Your task to perform on an android device: View the shopping cart on ebay.com. Add rayovac triple a to the cart on ebay.com Image 0: 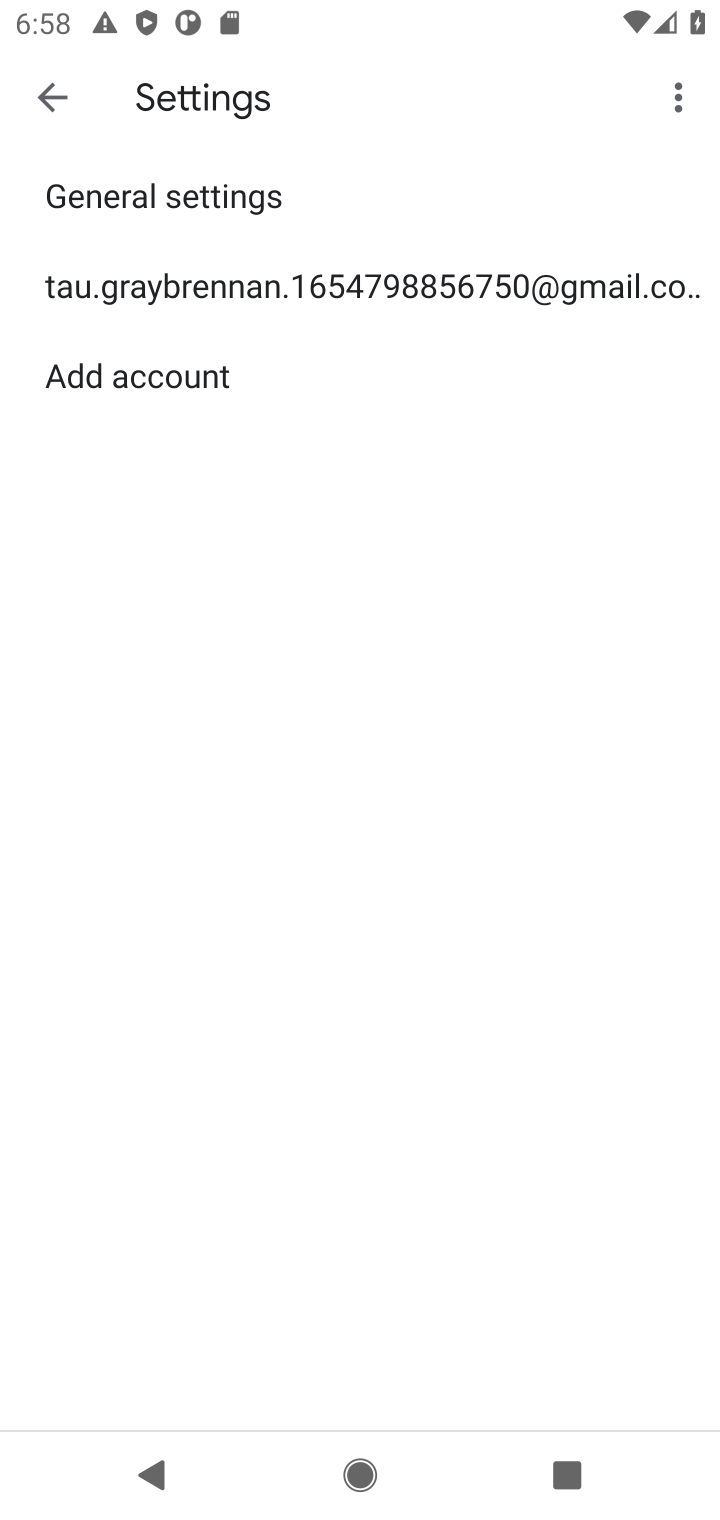
Step 0: press home button
Your task to perform on an android device: View the shopping cart on ebay.com. Add rayovac triple a to the cart on ebay.com Image 1: 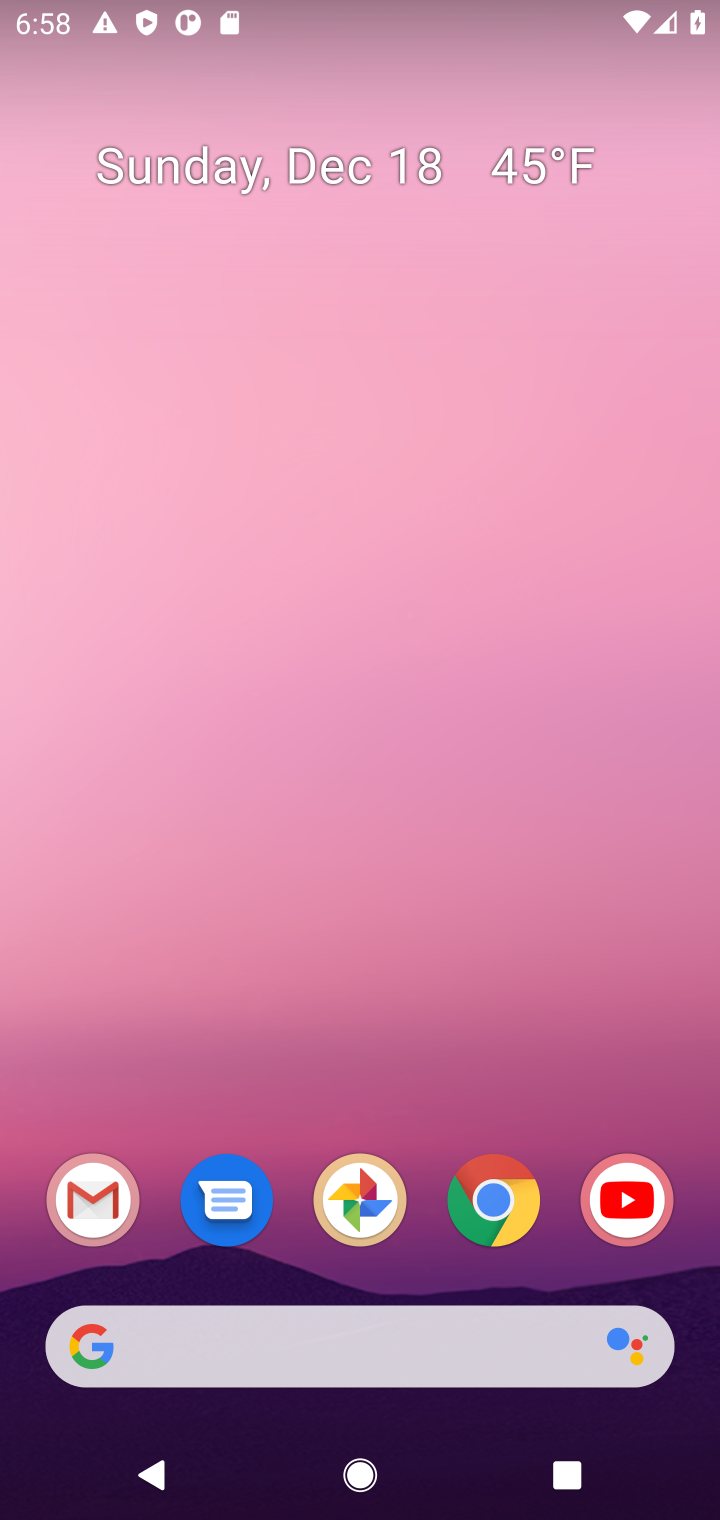
Step 1: click (485, 1215)
Your task to perform on an android device: View the shopping cart on ebay.com. Add rayovac triple a to the cart on ebay.com Image 2: 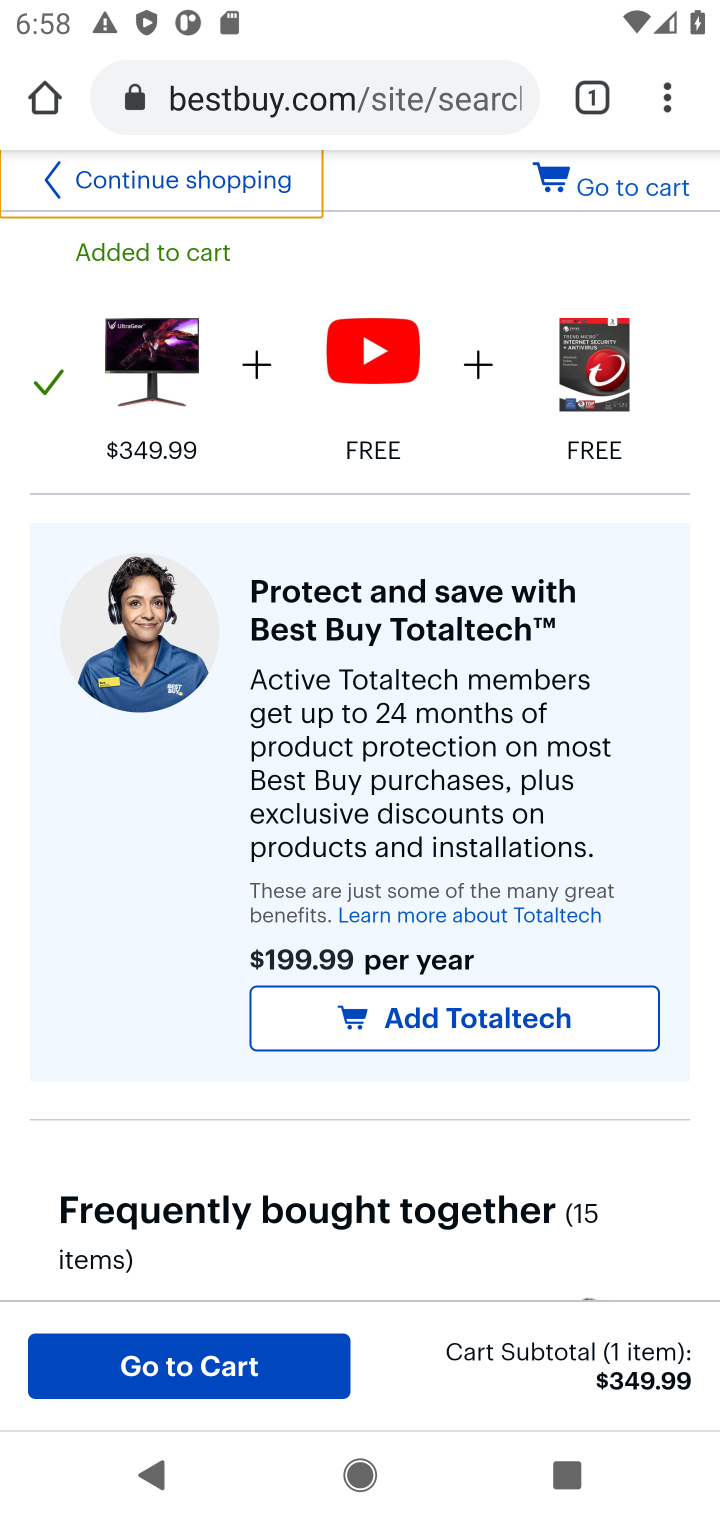
Step 2: click (318, 103)
Your task to perform on an android device: View the shopping cart on ebay.com. Add rayovac triple a to the cart on ebay.com Image 3: 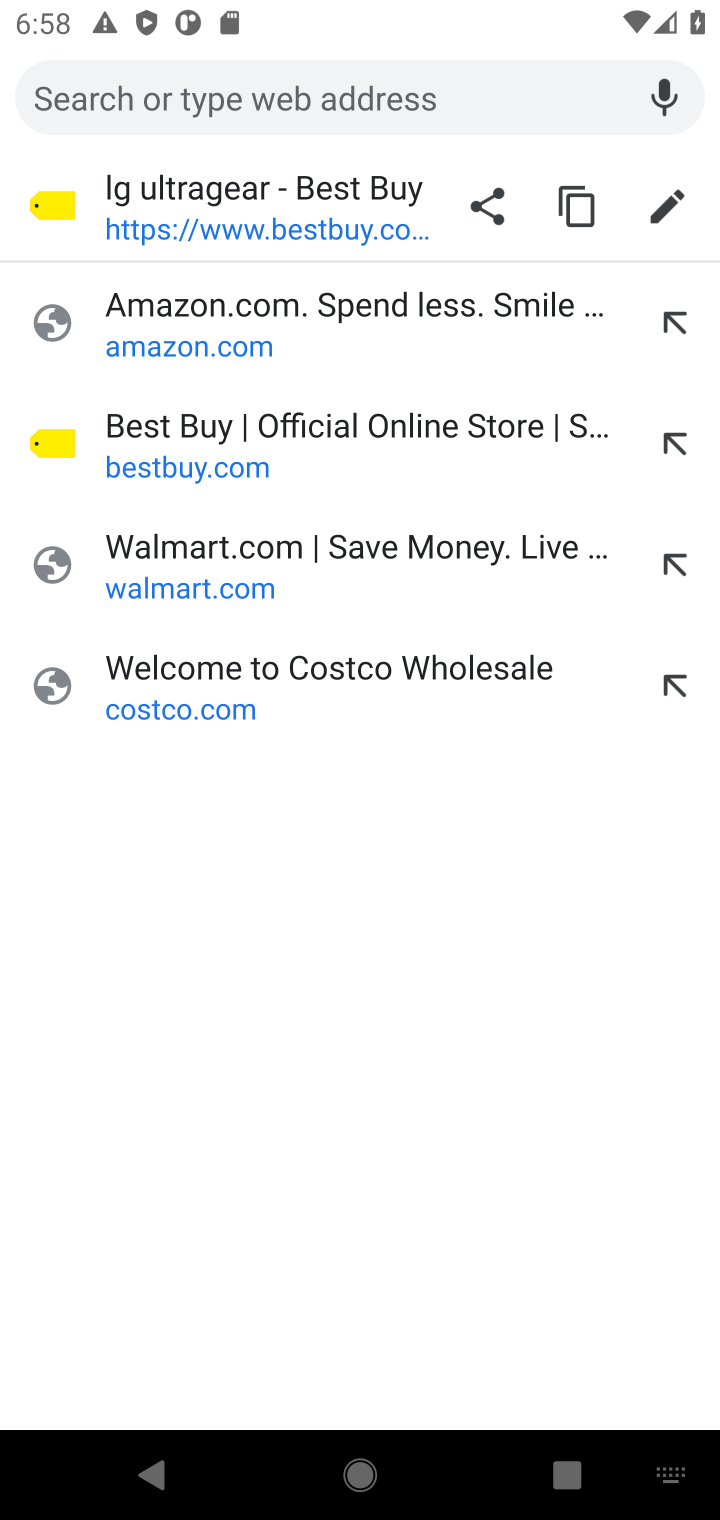
Step 3: type "ebay.com"
Your task to perform on an android device: View the shopping cart on ebay.com. Add rayovac triple a to the cart on ebay.com Image 4: 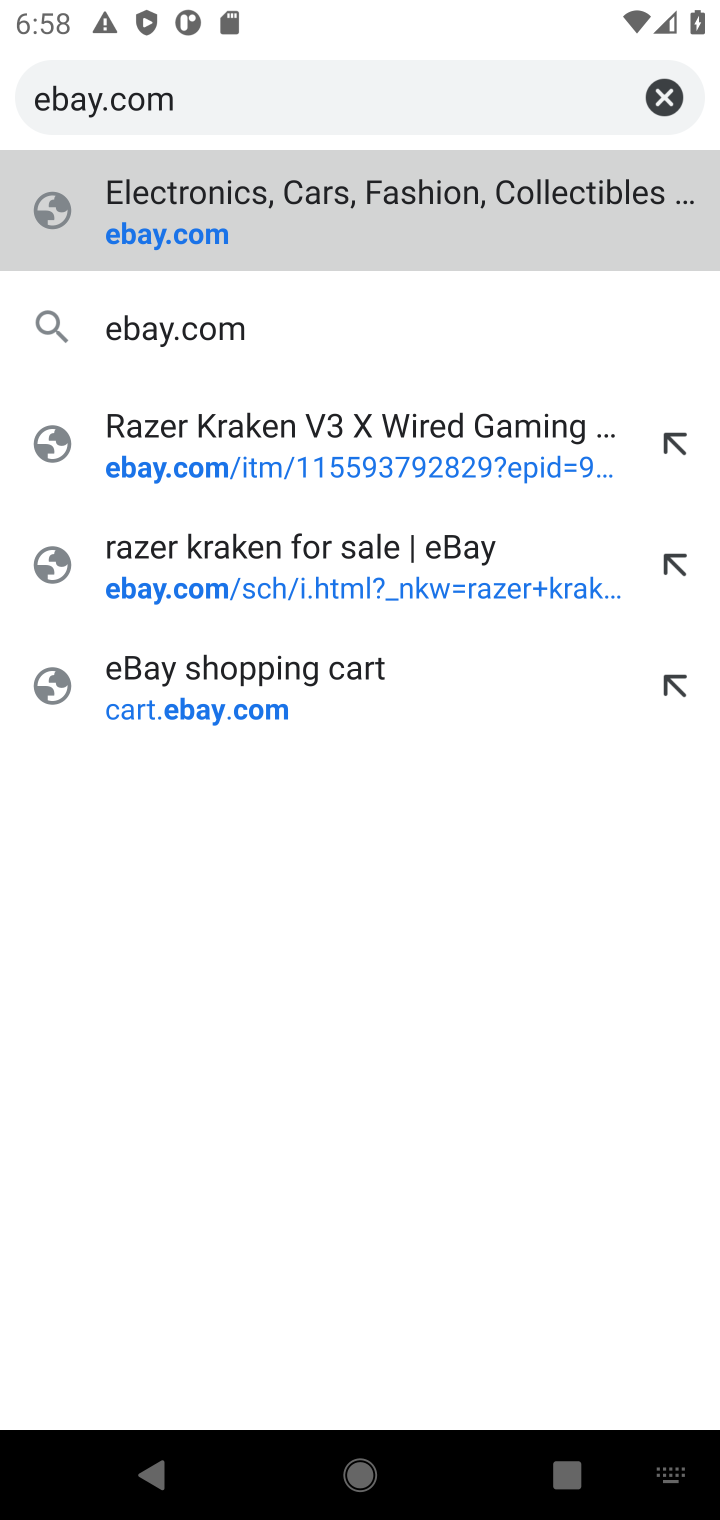
Step 4: click (201, 227)
Your task to perform on an android device: View the shopping cart on ebay.com. Add rayovac triple a to the cart on ebay.com Image 5: 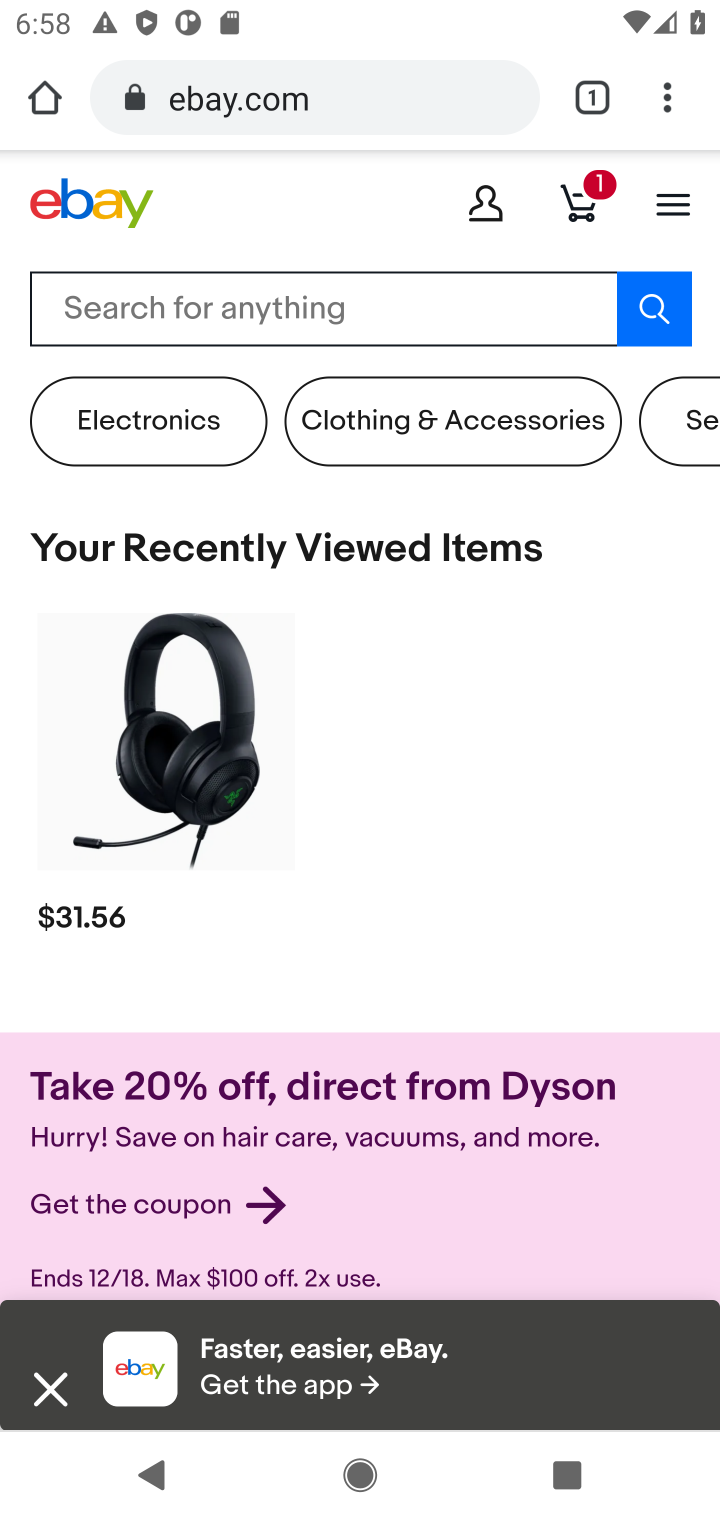
Step 5: click (591, 208)
Your task to perform on an android device: View the shopping cart on ebay.com. Add rayovac triple a to the cart on ebay.com Image 6: 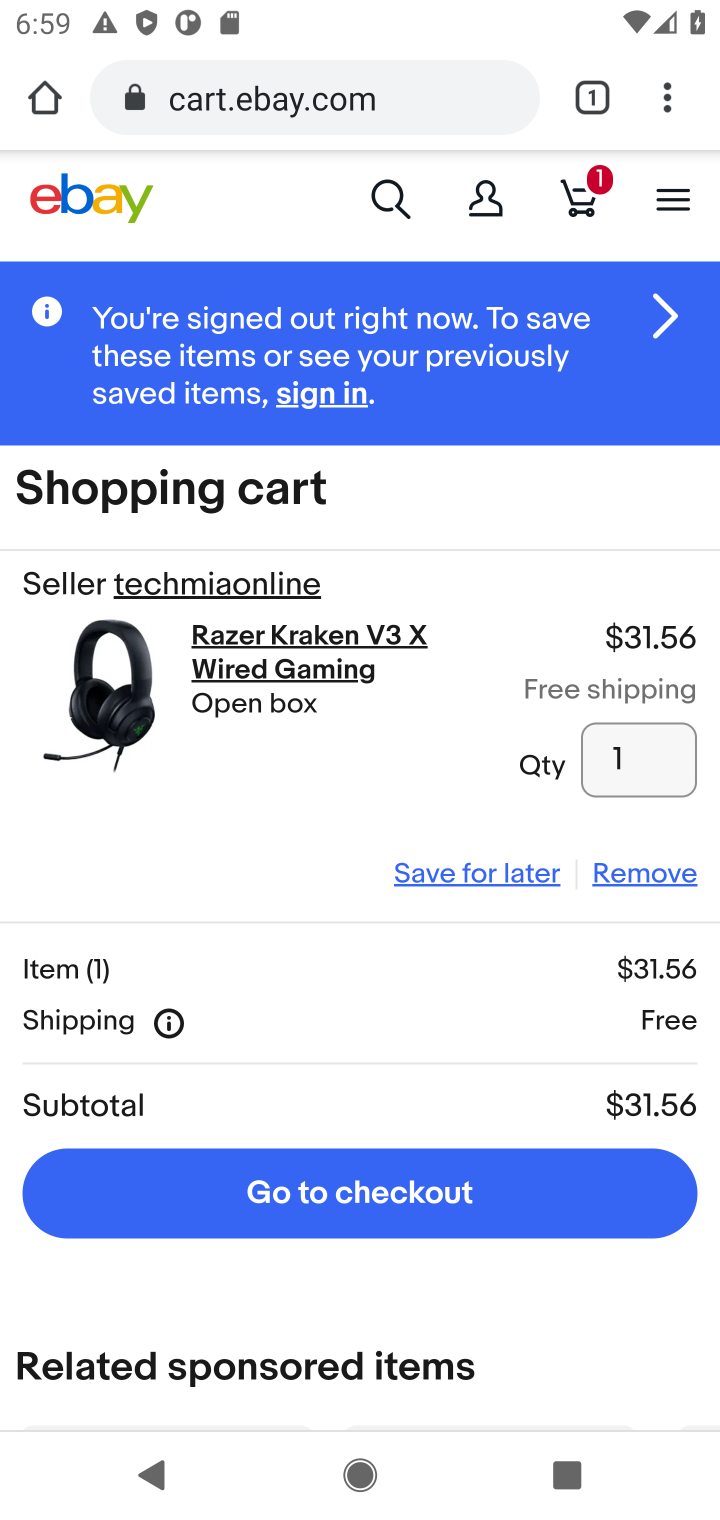
Step 6: click (383, 205)
Your task to perform on an android device: View the shopping cart on ebay.com. Add rayovac triple a to the cart on ebay.com Image 7: 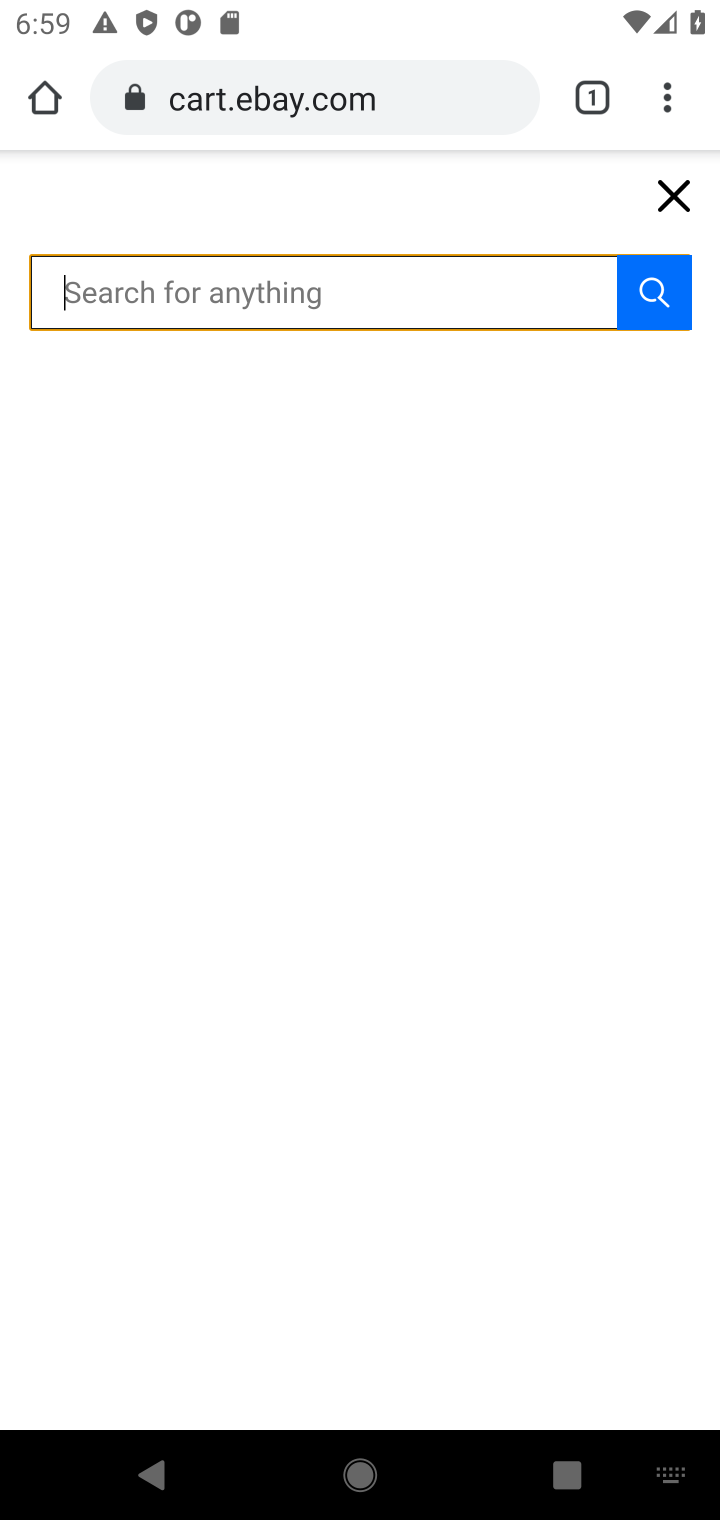
Step 7: type "rayovac triple a"
Your task to perform on an android device: View the shopping cart on ebay.com. Add rayovac triple a to the cart on ebay.com Image 8: 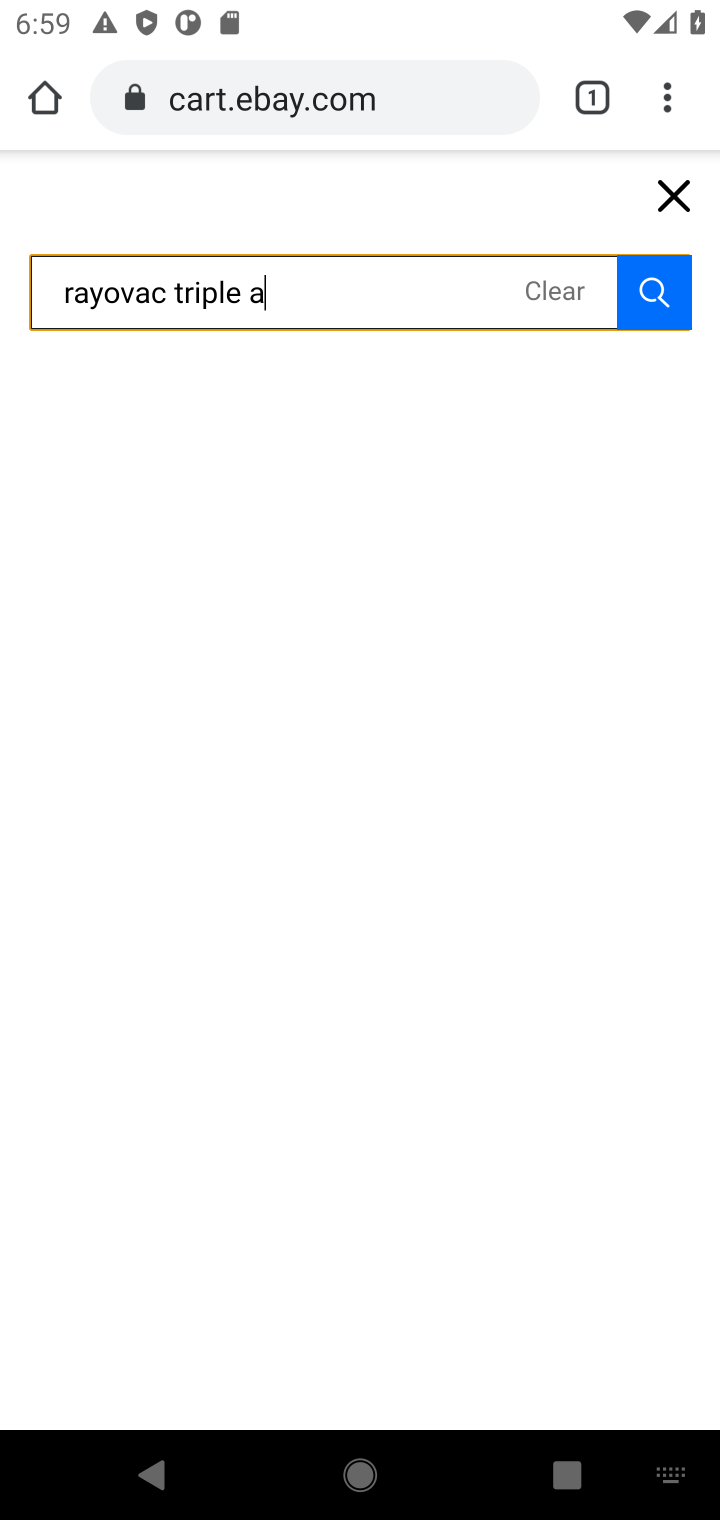
Step 8: click (659, 292)
Your task to perform on an android device: View the shopping cart on ebay.com. Add rayovac triple a to the cart on ebay.com Image 9: 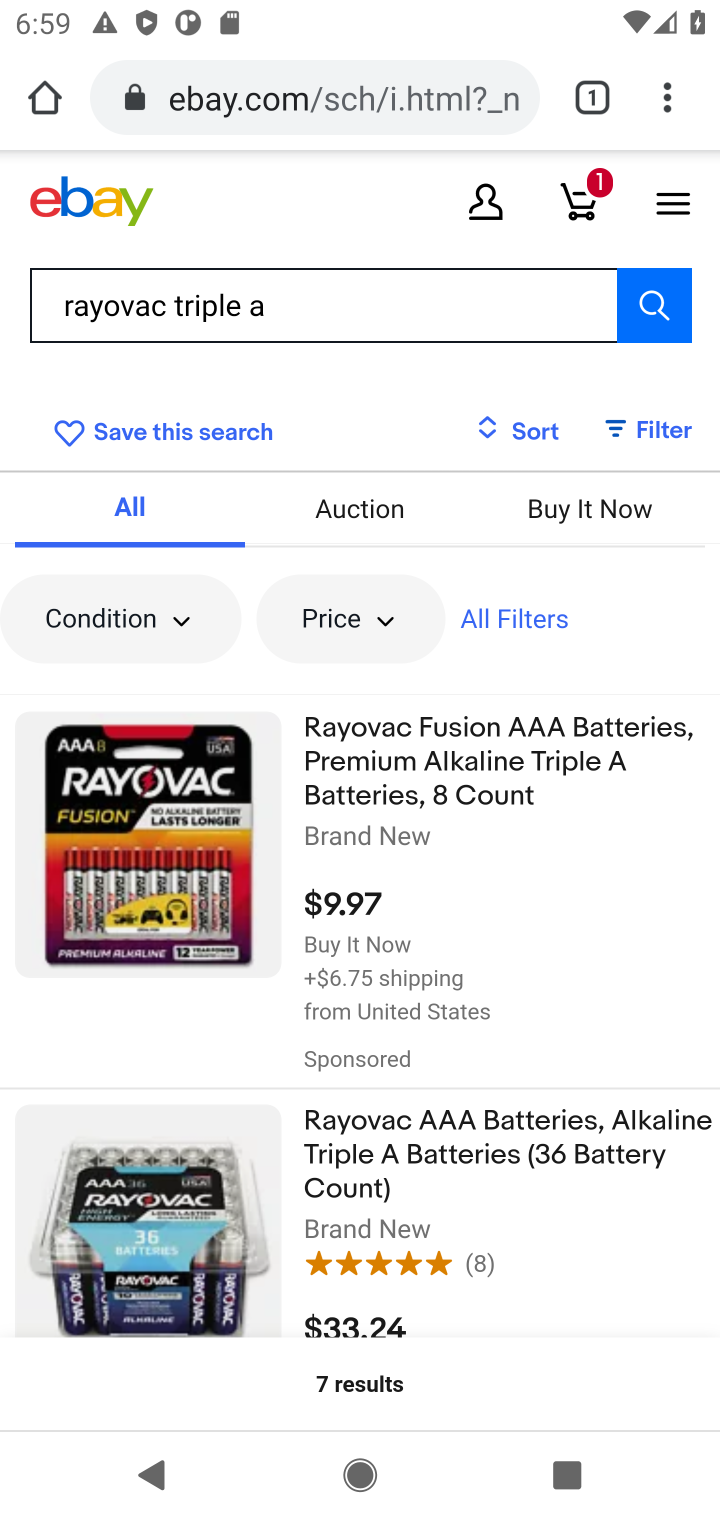
Step 9: click (300, 793)
Your task to perform on an android device: View the shopping cart on ebay.com. Add rayovac triple a to the cart on ebay.com Image 10: 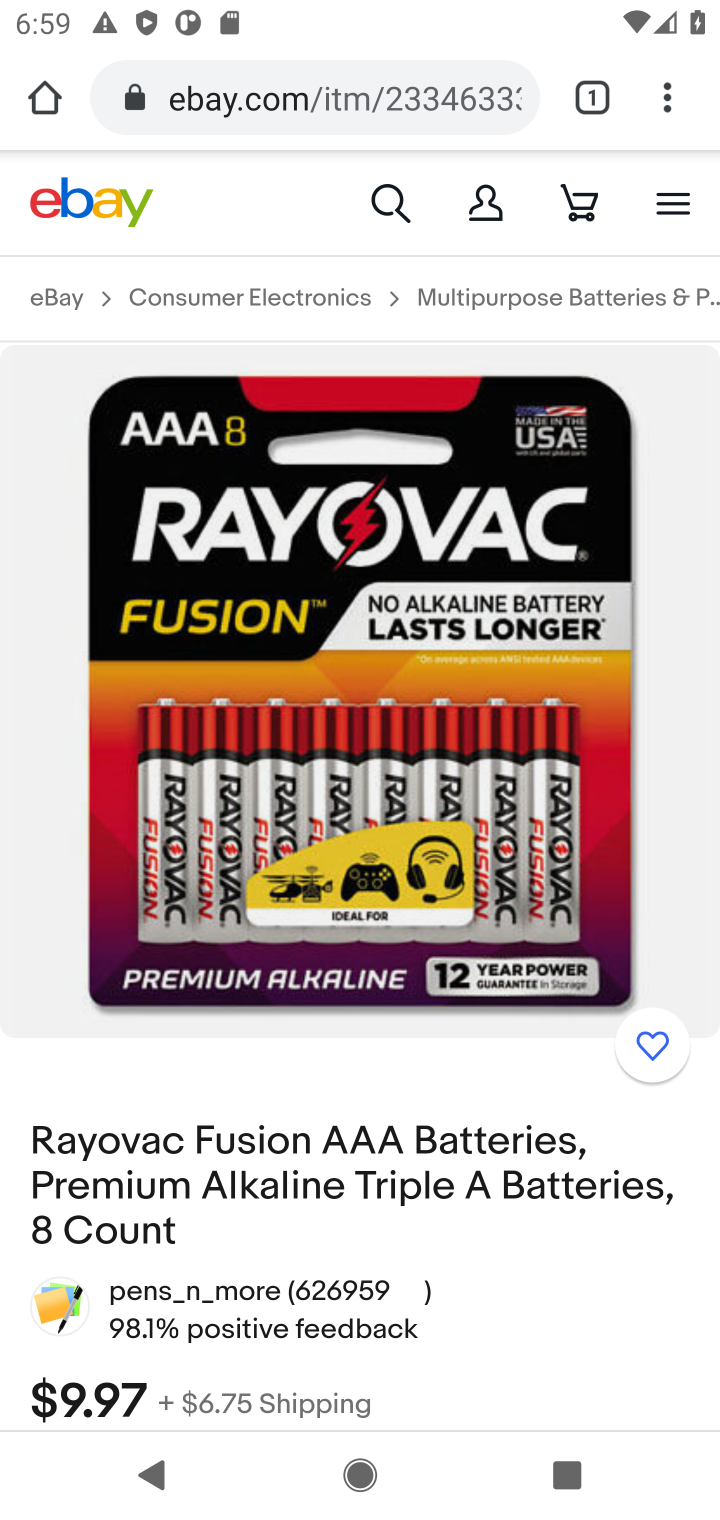
Step 10: drag from (315, 946) to (335, 457)
Your task to perform on an android device: View the shopping cart on ebay.com. Add rayovac triple a to the cart on ebay.com Image 11: 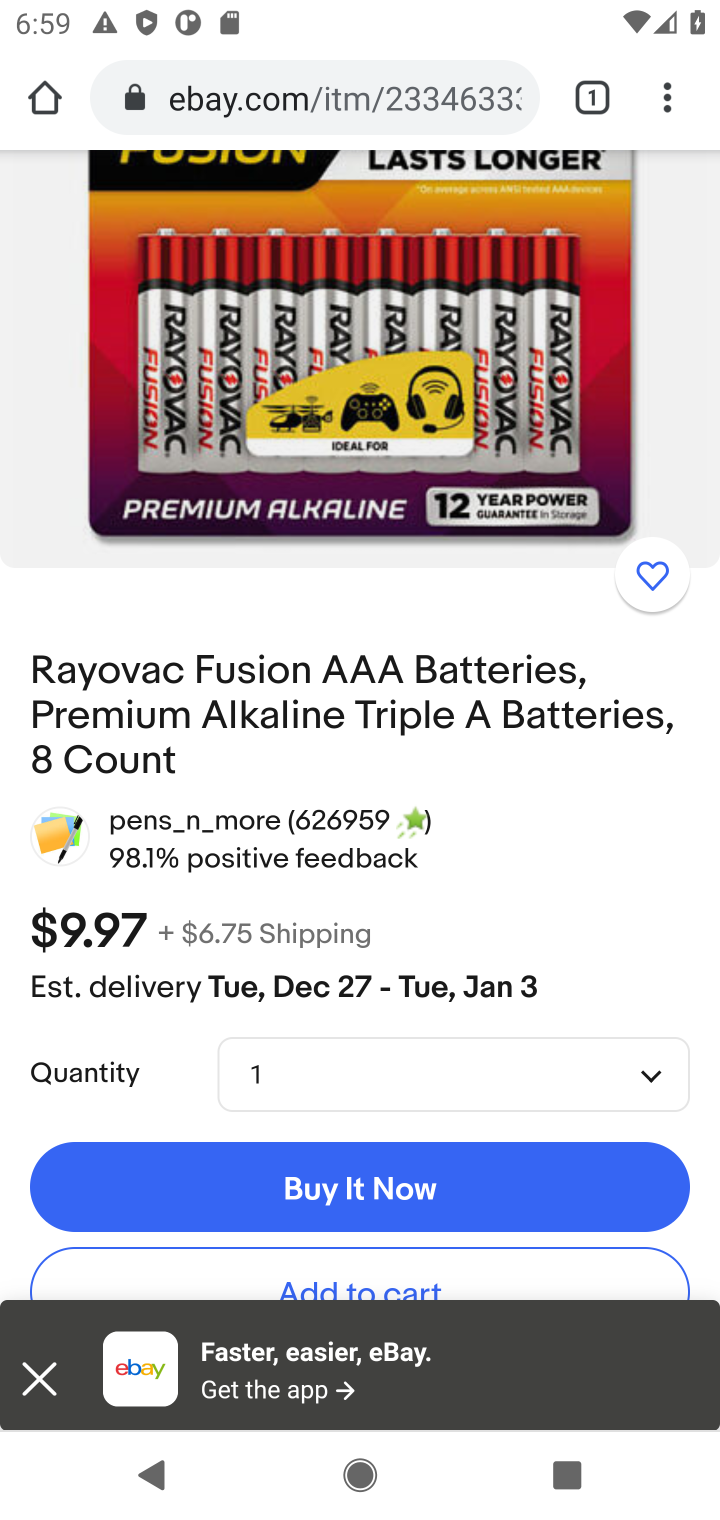
Step 11: click (330, 1270)
Your task to perform on an android device: View the shopping cart on ebay.com. Add rayovac triple a to the cart on ebay.com Image 12: 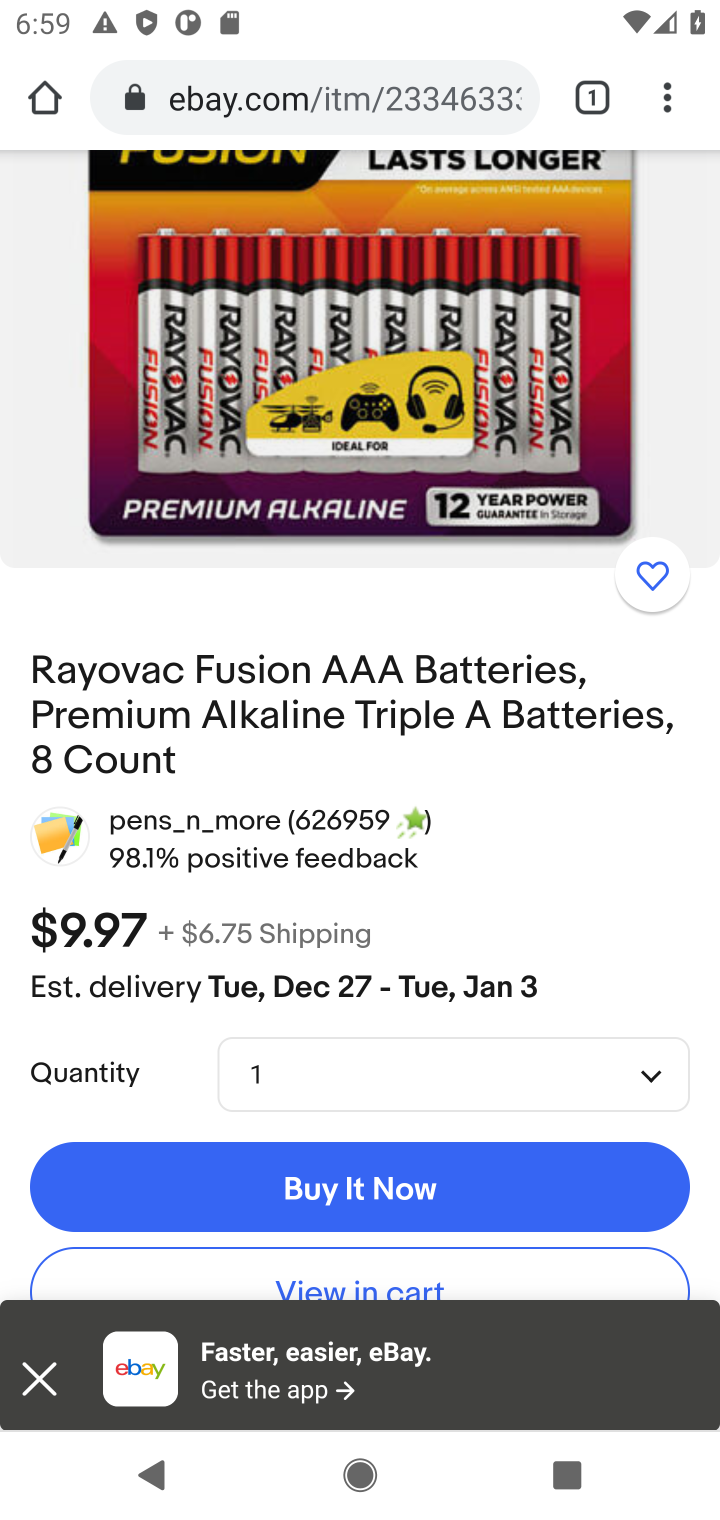
Step 12: task complete